Your task to perform on an android device: empty trash in the gmail app Image 0: 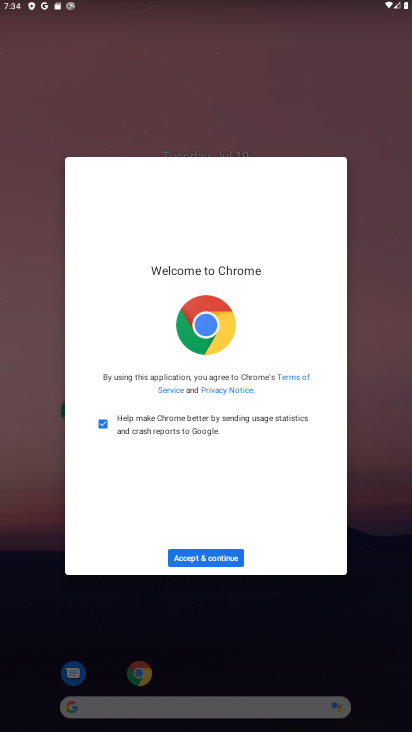
Step 0: click (205, 556)
Your task to perform on an android device: empty trash in the gmail app Image 1: 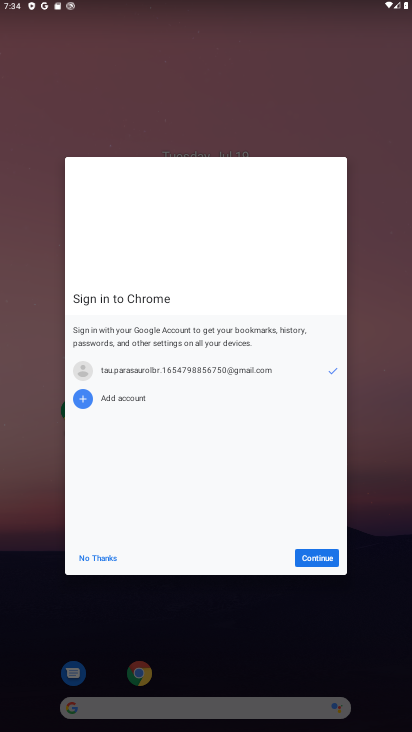
Step 1: click (329, 556)
Your task to perform on an android device: empty trash in the gmail app Image 2: 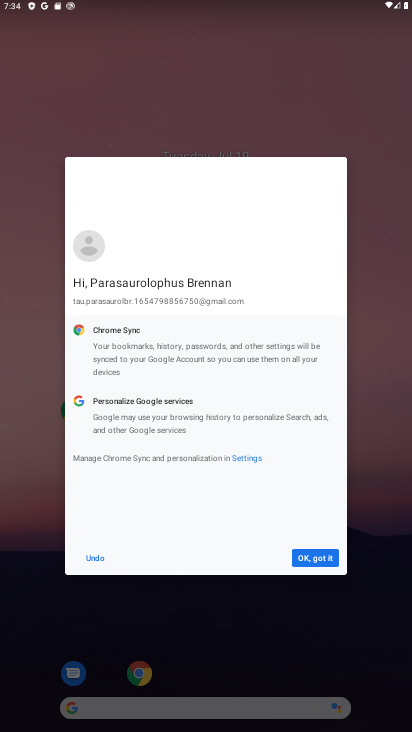
Step 2: click (329, 556)
Your task to perform on an android device: empty trash in the gmail app Image 3: 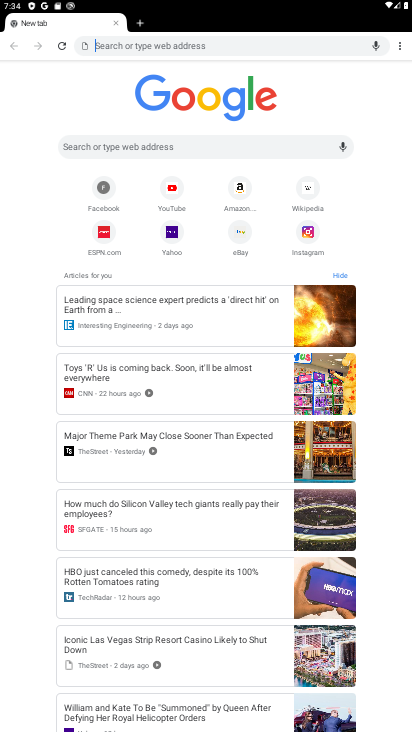
Step 3: press home button
Your task to perform on an android device: empty trash in the gmail app Image 4: 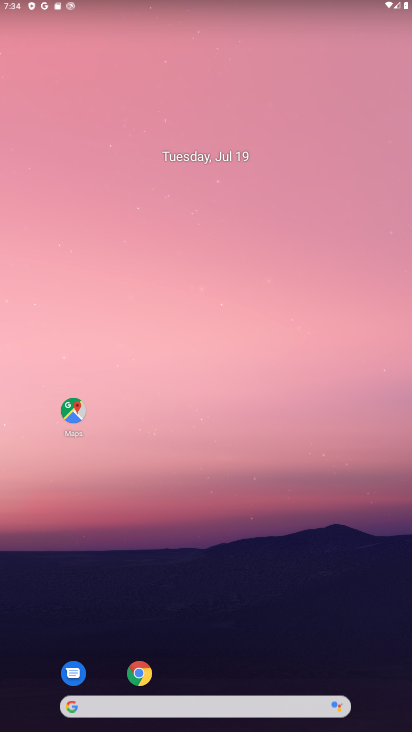
Step 4: drag from (216, 674) to (242, 175)
Your task to perform on an android device: empty trash in the gmail app Image 5: 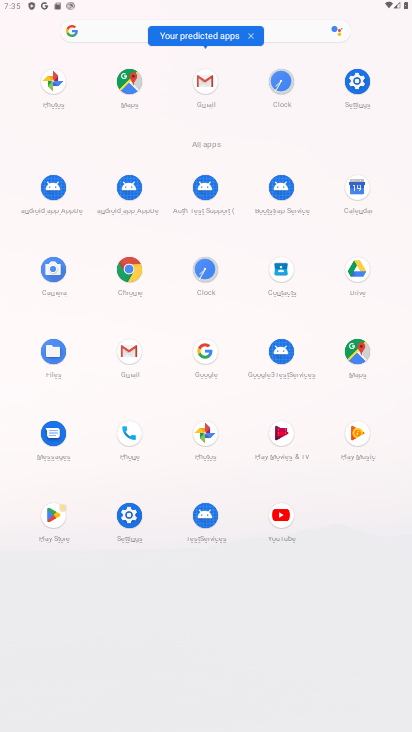
Step 5: click (195, 85)
Your task to perform on an android device: empty trash in the gmail app Image 6: 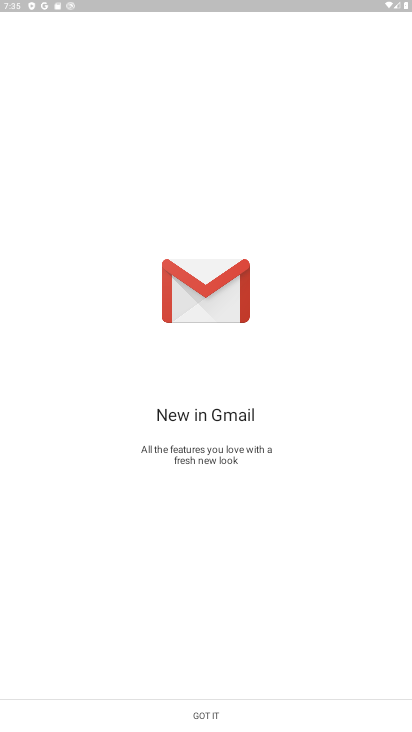
Step 6: click (166, 726)
Your task to perform on an android device: empty trash in the gmail app Image 7: 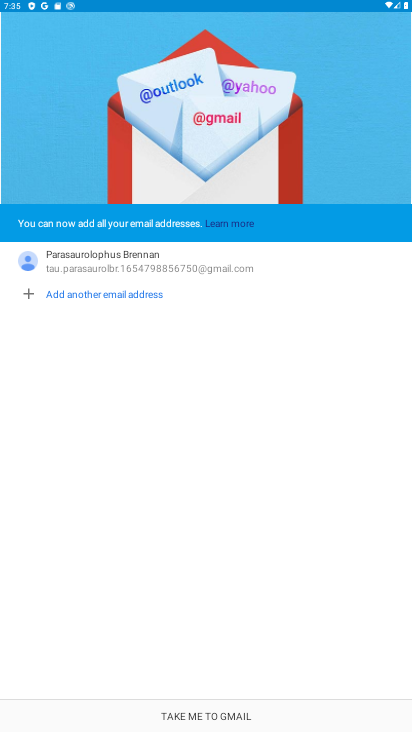
Step 7: click (170, 724)
Your task to perform on an android device: empty trash in the gmail app Image 8: 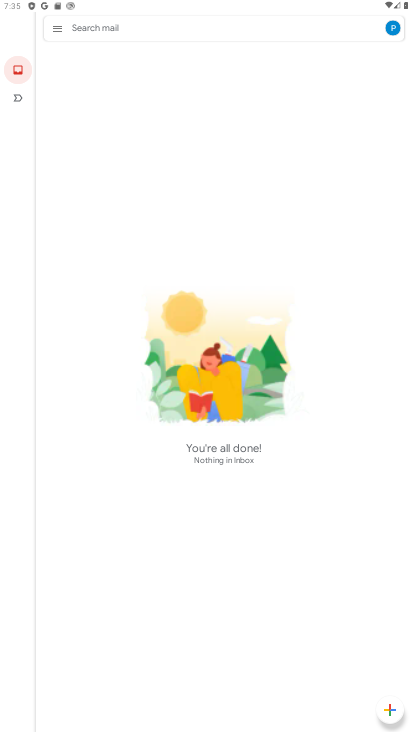
Step 8: click (54, 32)
Your task to perform on an android device: empty trash in the gmail app Image 9: 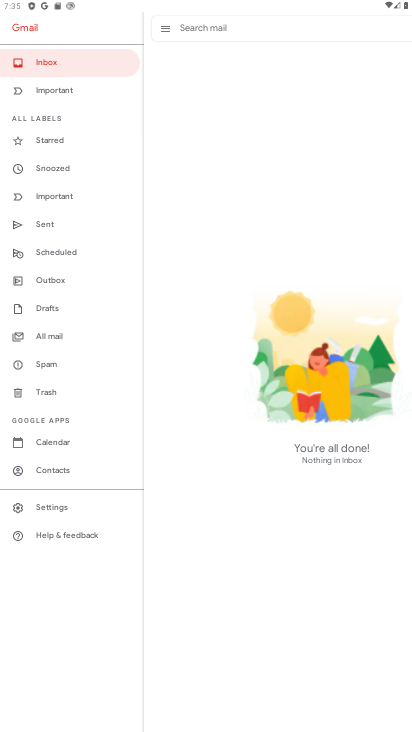
Step 9: click (69, 508)
Your task to perform on an android device: empty trash in the gmail app Image 10: 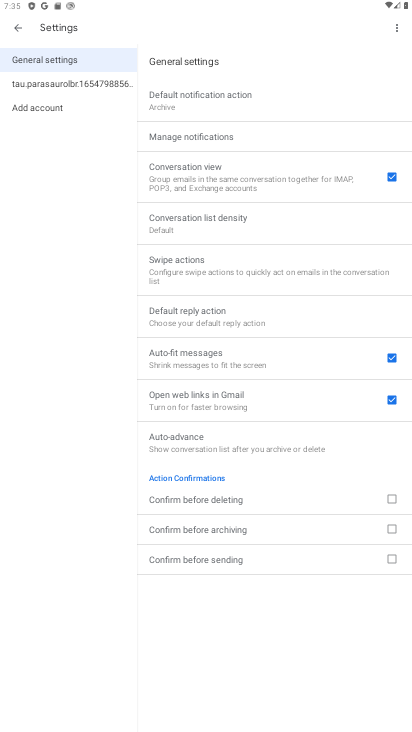
Step 10: click (11, 28)
Your task to perform on an android device: empty trash in the gmail app Image 11: 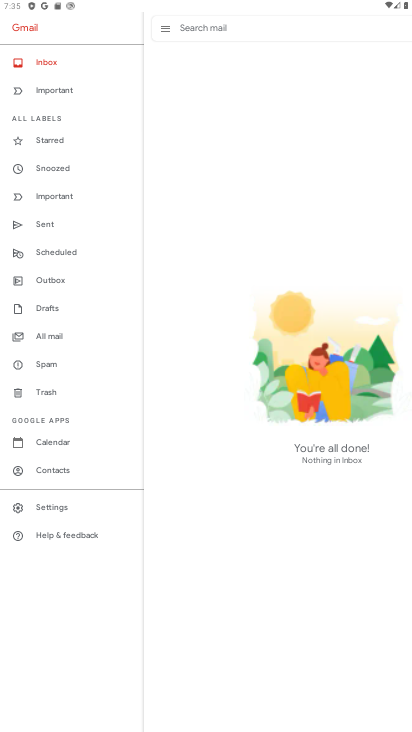
Step 11: click (49, 384)
Your task to perform on an android device: empty trash in the gmail app Image 12: 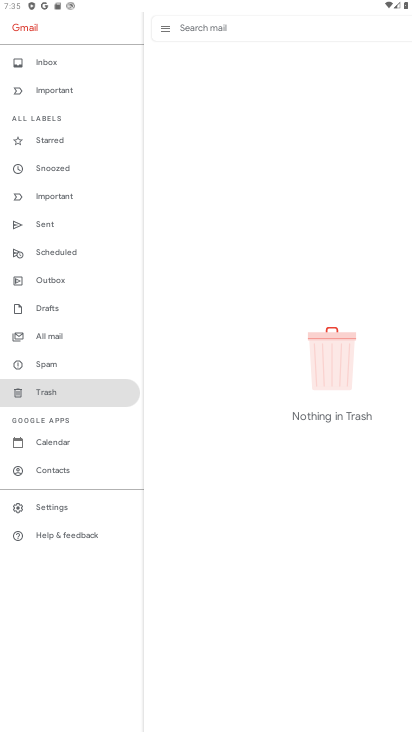
Step 12: task complete